Your task to perform on an android device: Play the last video I watched on Youtube Image 0: 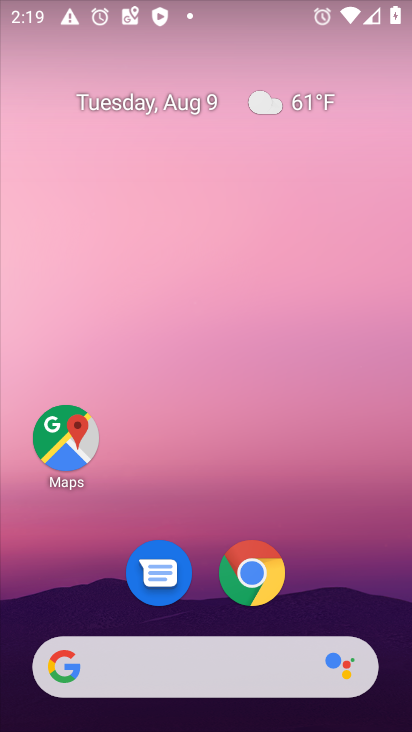
Step 0: press home button
Your task to perform on an android device: Play the last video I watched on Youtube Image 1: 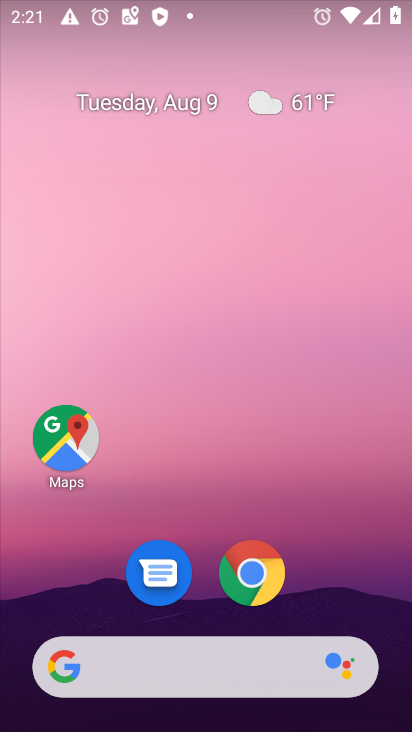
Step 1: drag from (40, 482) to (172, 111)
Your task to perform on an android device: Play the last video I watched on Youtube Image 2: 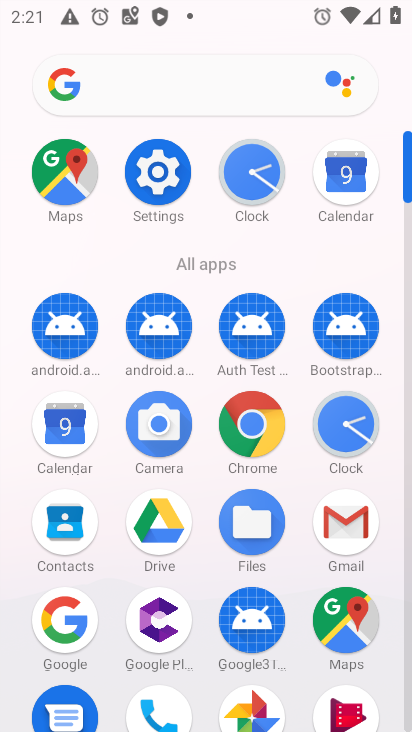
Step 2: drag from (1, 720) to (305, 168)
Your task to perform on an android device: Play the last video I watched on Youtube Image 3: 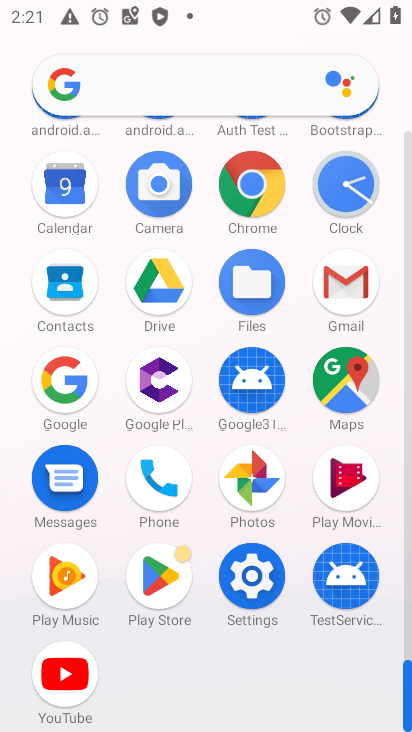
Step 3: click (85, 696)
Your task to perform on an android device: Play the last video I watched on Youtube Image 4: 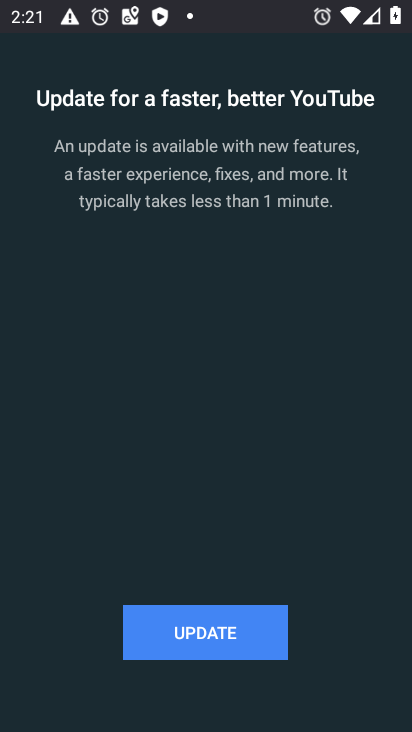
Step 4: task complete